Your task to perform on an android device: Go to eBay Image 0: 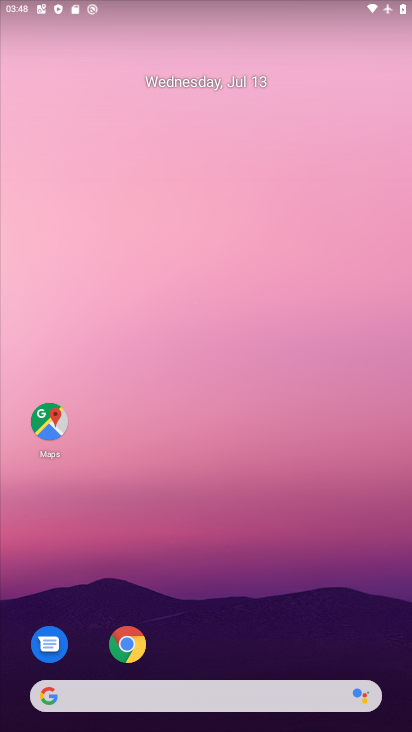
Step 0: click (135, 647)
Your task to perform on an android device: Go to eBay Image 1: 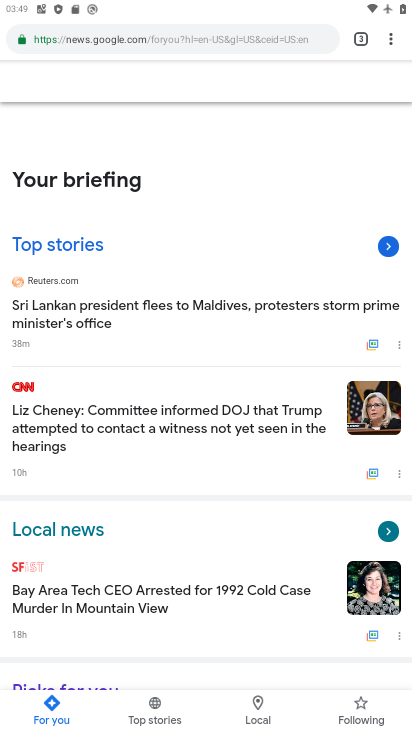
Step 1: click (217, 41)
Your task to perform on an android device: Go to eBay Image 2: 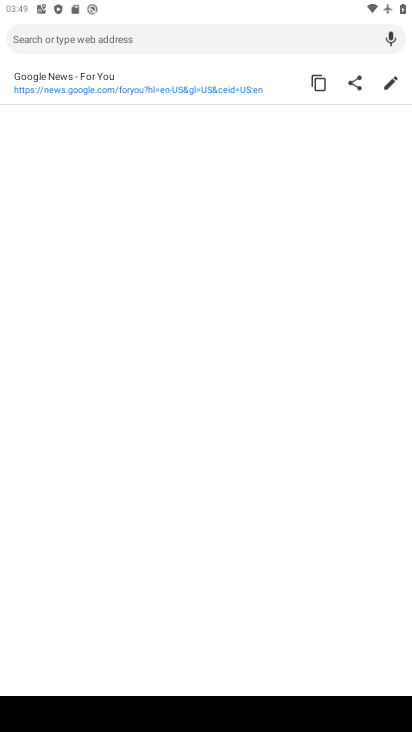
Step 2: type "ebay"
Your task to perform on an android device: Go to eBay Image 3: 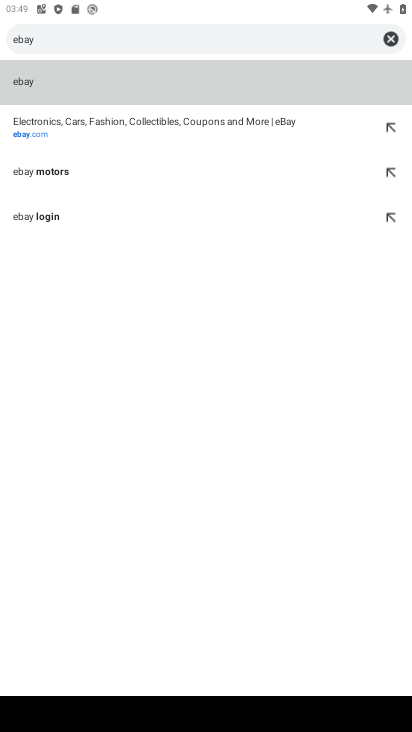
Step 3: click (22, 128)
Your task to perform on an android device: Go to eBay Image 4: 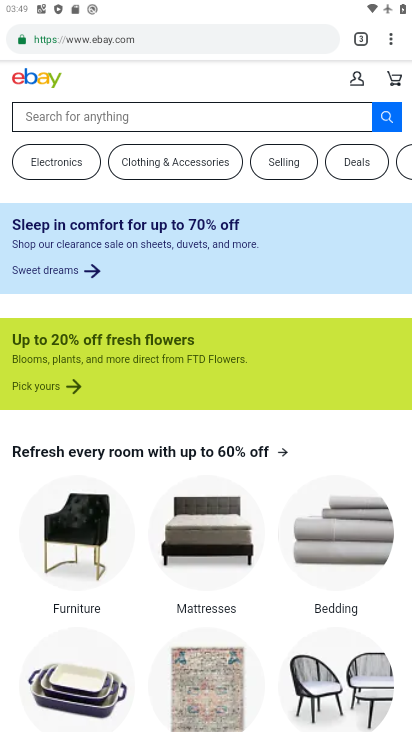
Step 4: task complete